Your task to perform on an android device: turn on priority inbox in the gmail app Image 0: 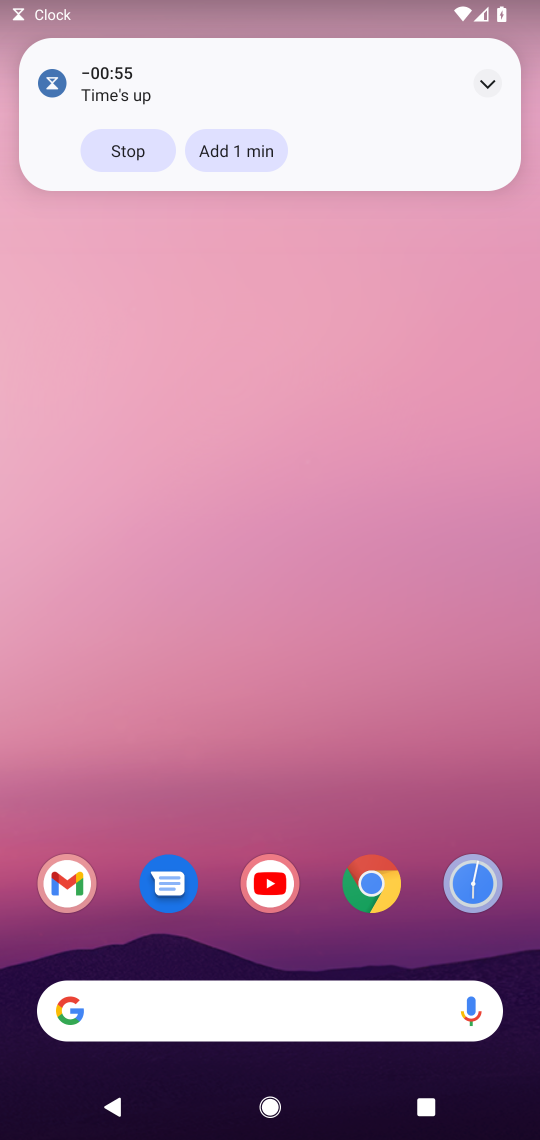
Step 0: drag from (232, 973) to (241, 264)
Your task to perform on an android device: turn on priority inbox in the gmail app Image 1: 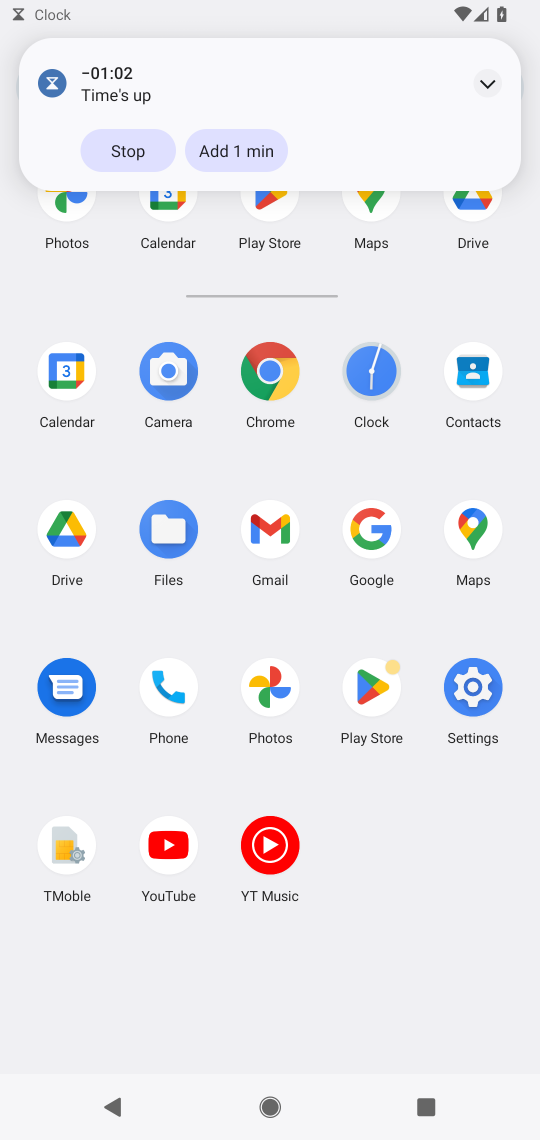
Step 1: click (135, 149)
Your task to perform on an android device: turn on priority inbox in the gmail app Image 2: 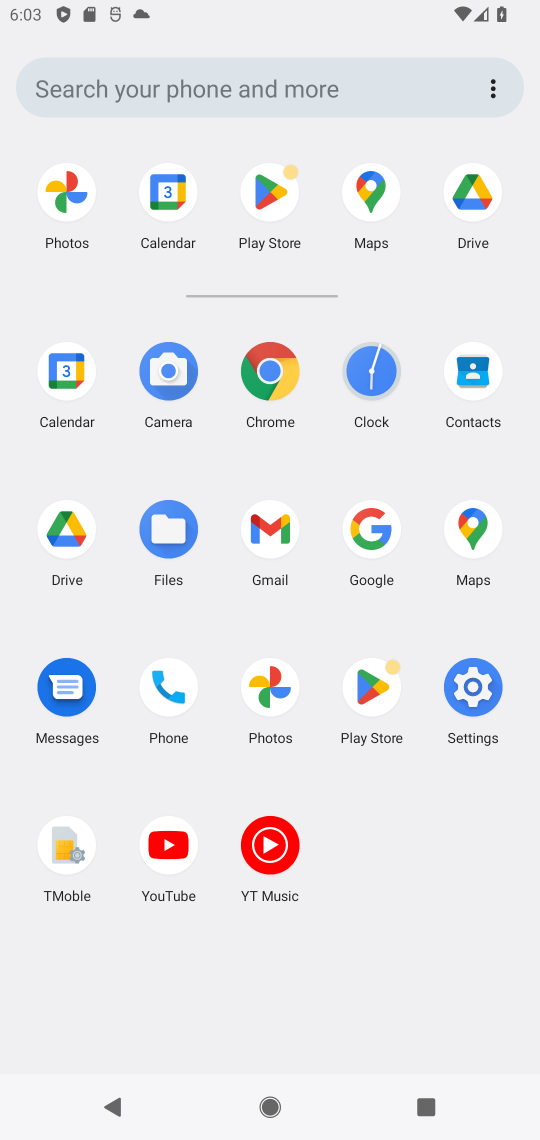
Step 2: click (273, 537)
Your task to perform on an android device: turn on priority inbox in the gmail app Image 3: 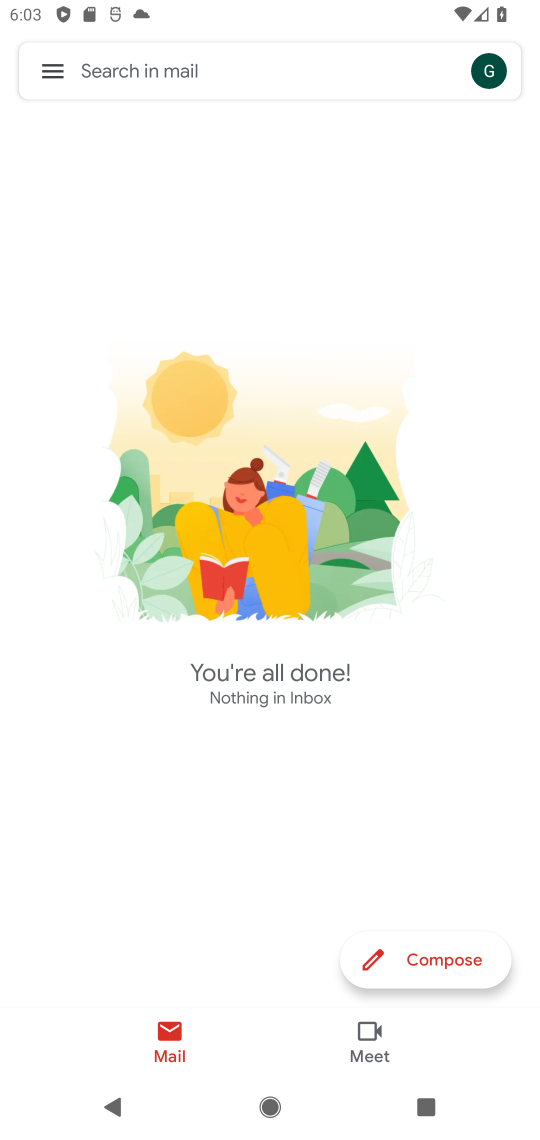
Step 3: click (56, 65)
Your task to perform on an android device: turn on priority inbox in the gmail app Image 4: 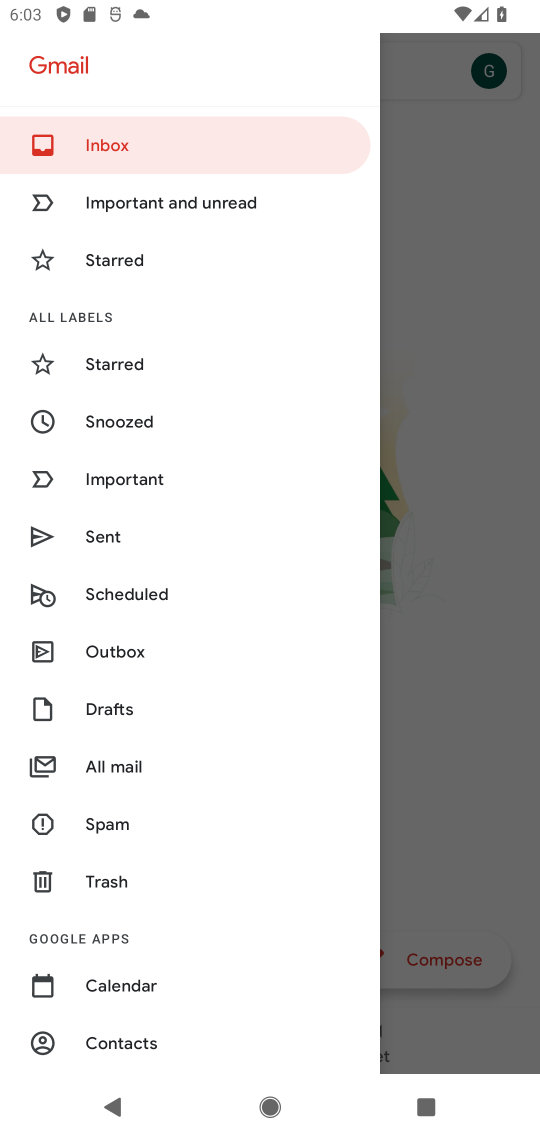
Step 4: drag from (115, 1000) to (122, 331)
Your task to perform on an android device: turn on priority inbox in the gmail app Image 5: 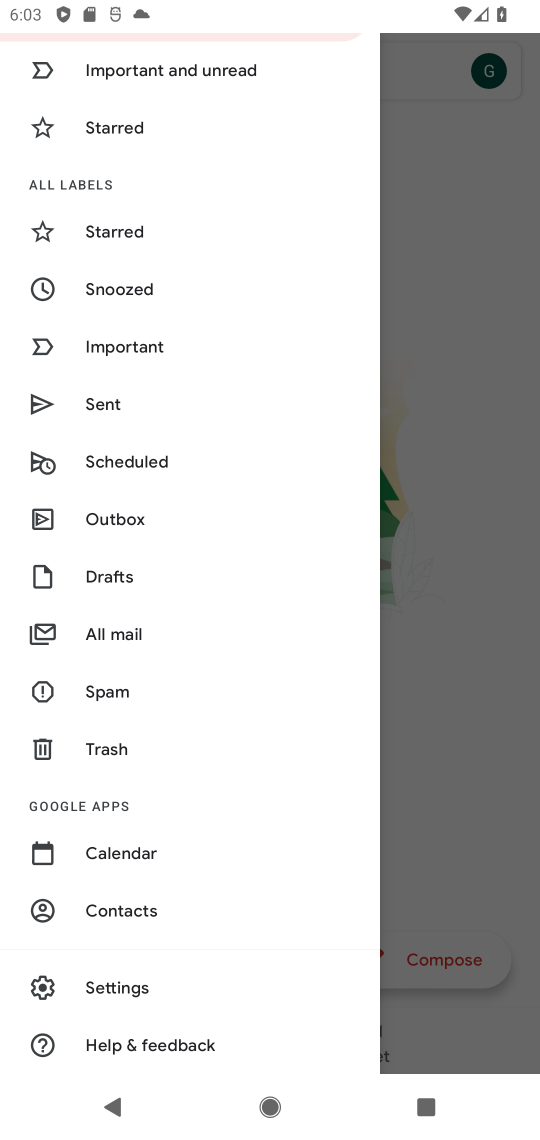
Step 5: click (105, 984)
Your task to perform on an android device: turn on priority inbox in the gmail app Image 6: 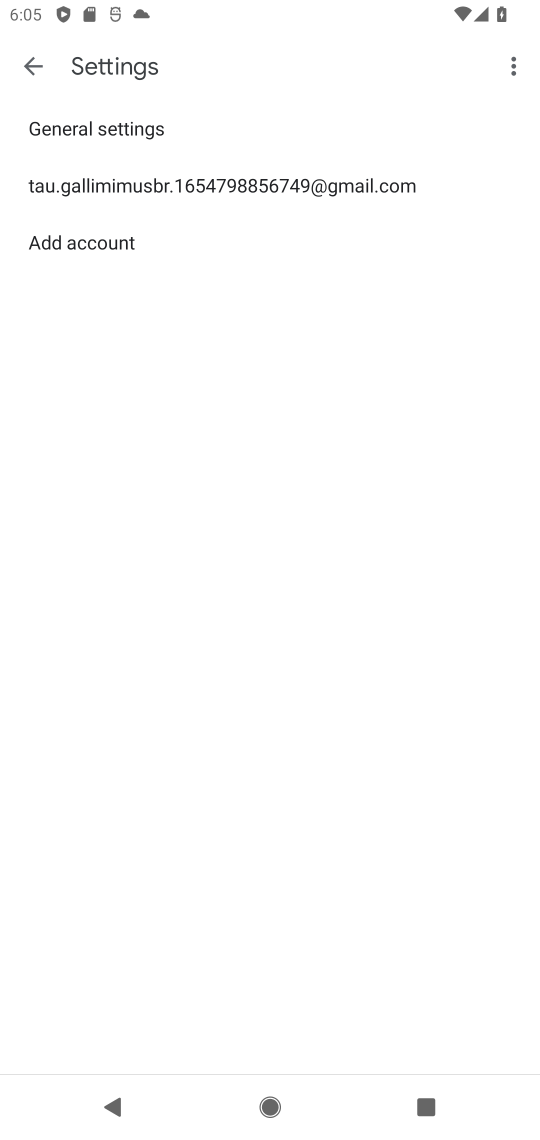
Step 6: click (67, 187)
Your task to perform on an android device: turn on priority inbox in the gmail app Image 7: 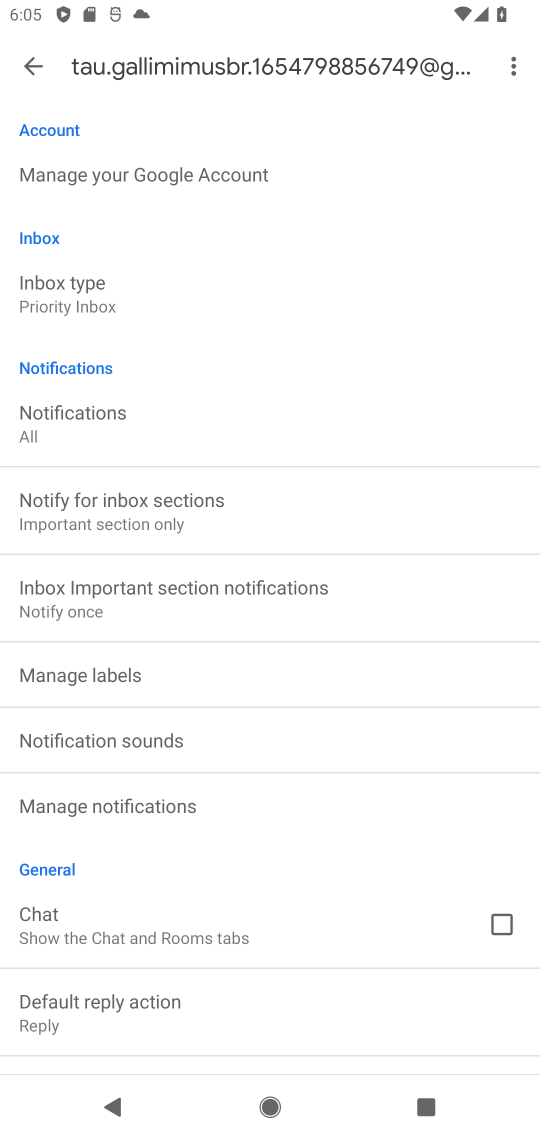
Step 7: click (46, 296)
Your task to perform on an android device: turn on priority inbox in the gmail app Image 8: 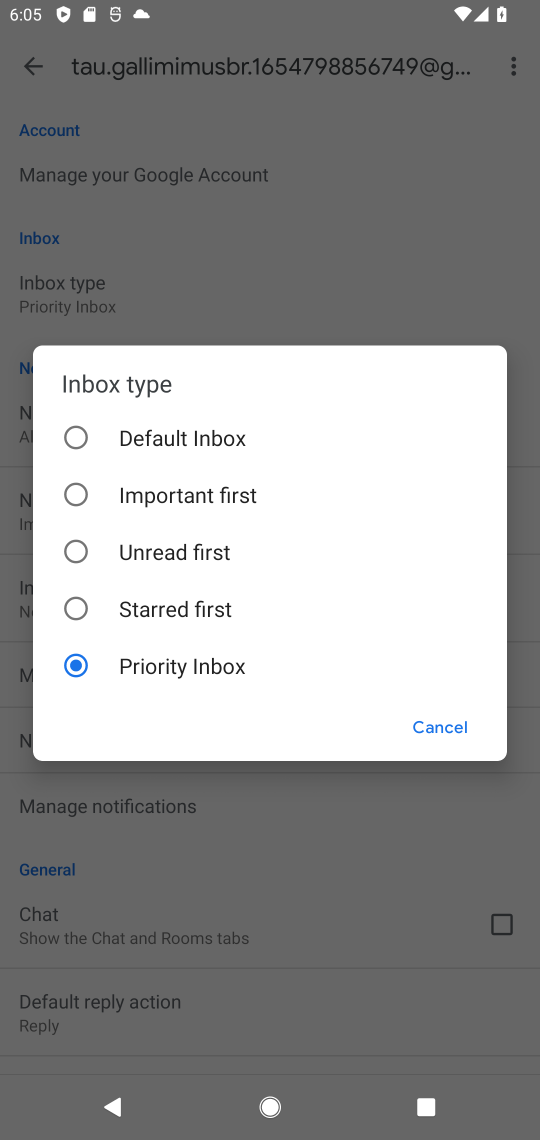
Step 8: click (196, 670)
Your task to perform on an android device: turn on priority inbox in the gmail app Image 9: 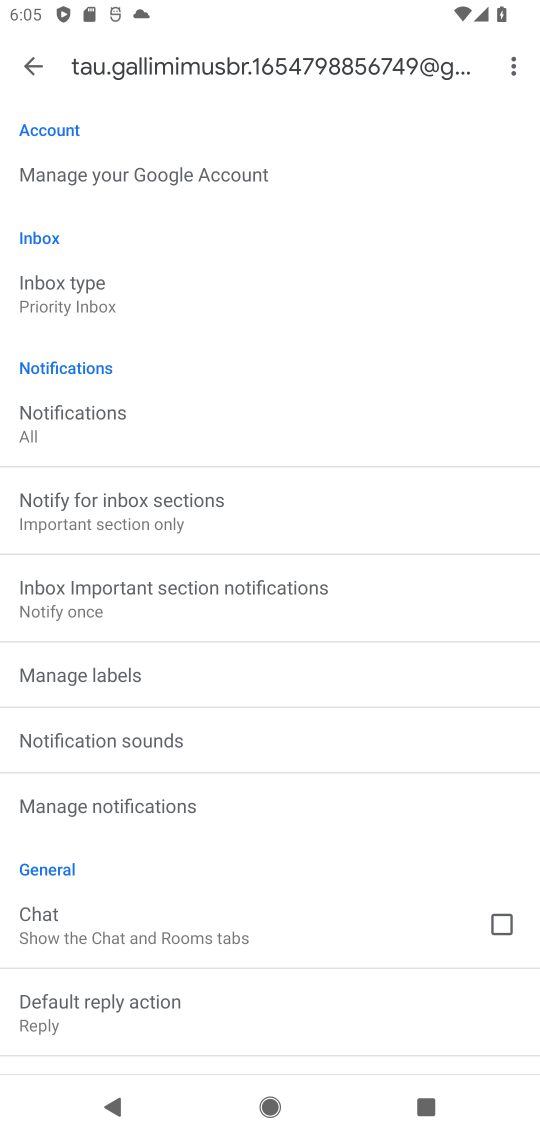
Step 9: task complete